Your task to perform on an android device: change alarm snooze length Image 0: 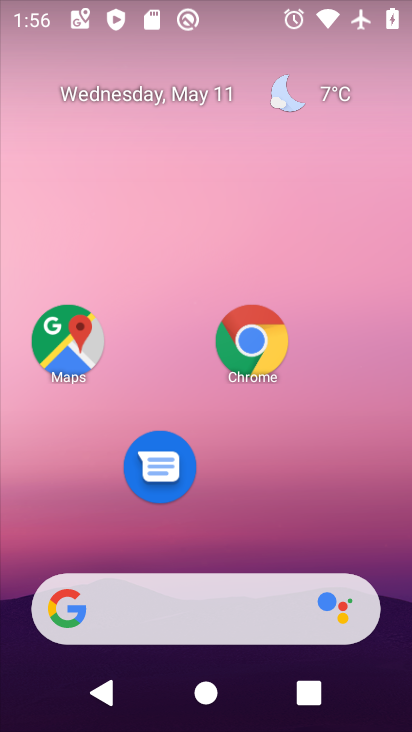
Step 0: drag from (193, 595) to (282, 171)
Your task to perform on an android device: change alarm snooze length Image 1: 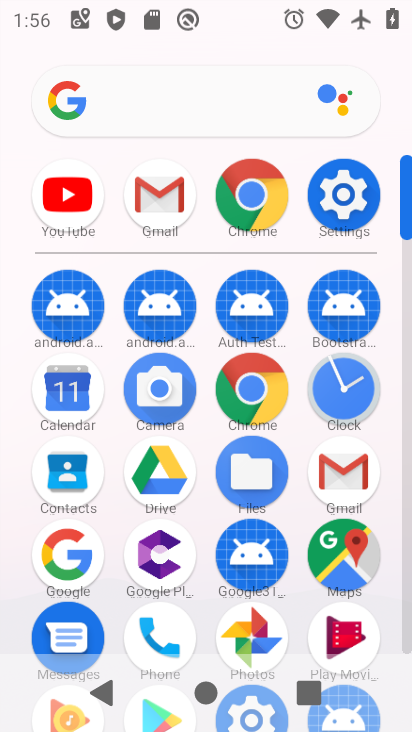
Step 1: click (332, 394)
Your task to perform on an android device: change alarm snooze length Image 2: 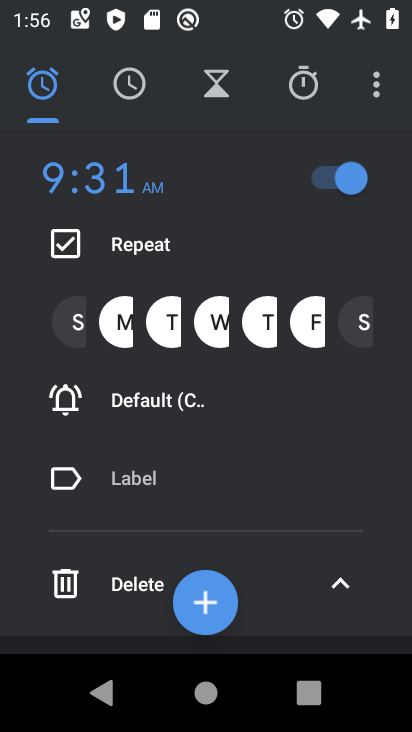
Step 2: click (378, 93)
Your task to perform on an android device: change alarm snooze length Image 3: 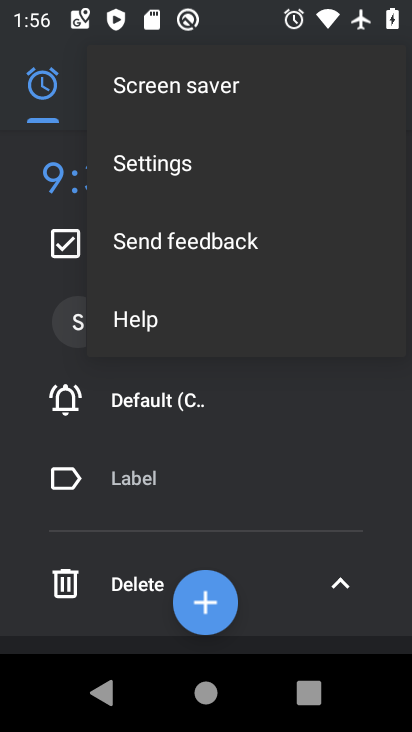
Step 3: click (189, 172)
Your task to perform on an android device: change alarm snooze length Image 4: 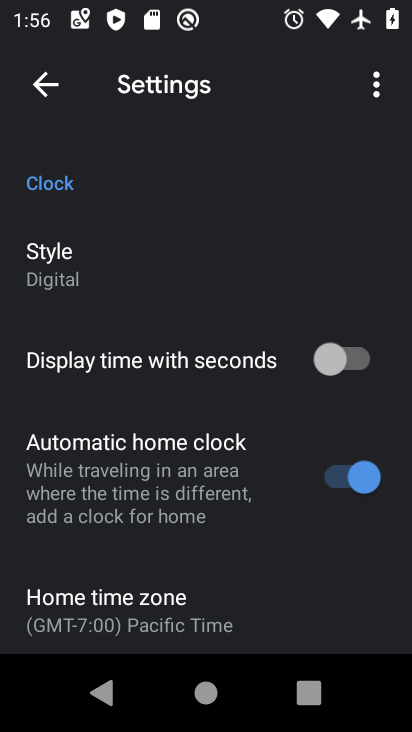
Step 4: drag from (137, 517) to (243, 89)
Your task to perform on an android device: change alarm snooze length Image 5: 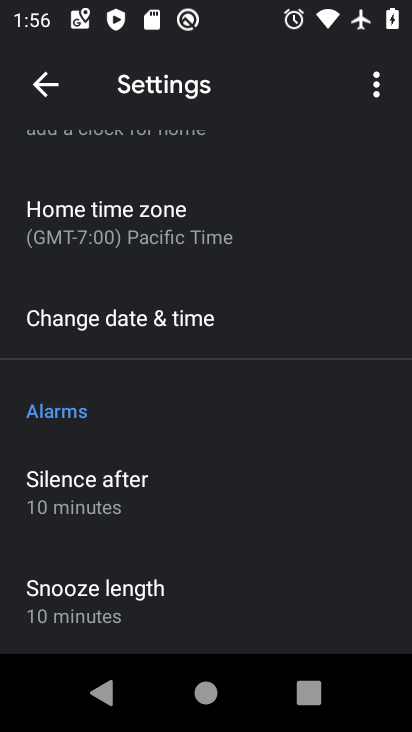
Step 5: click (104, 588)
Your task to perform on an android device: change alarm snooze length Image 6: 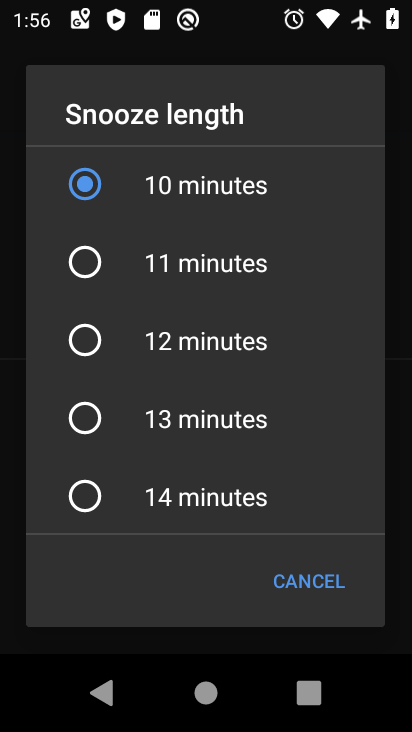
Step 6: click (82, 415)
Your task to perform on an android device: change alarm snooze length Image 7: 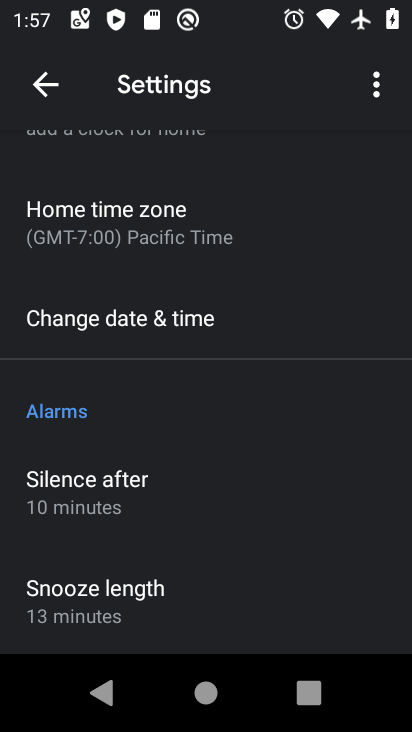
Step 7: task complete